Your task to perform on an android device: toggle show notifications on the lock screen Image 0: 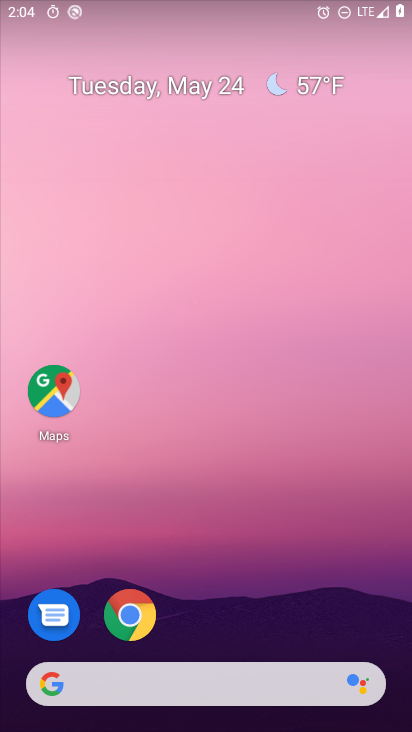
Step 0: drag from (152, 663) to (226, 88)
Your task to perform on an android device: toggle show notifications on the lock screen Image 1: 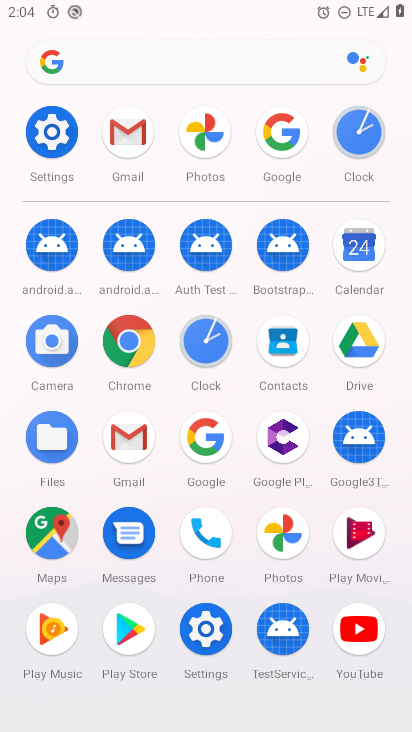
Step 1: click (41, 127)
Your task to perform on an android device: toggle show notifications on the lock screen Image 2: 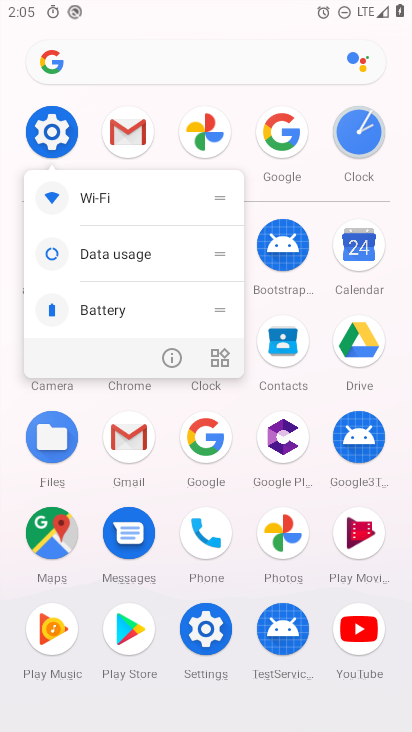
Step 2: click (203, 635)
Your task to perform on an android device: toggle show notifications on the lock screen Image 3: 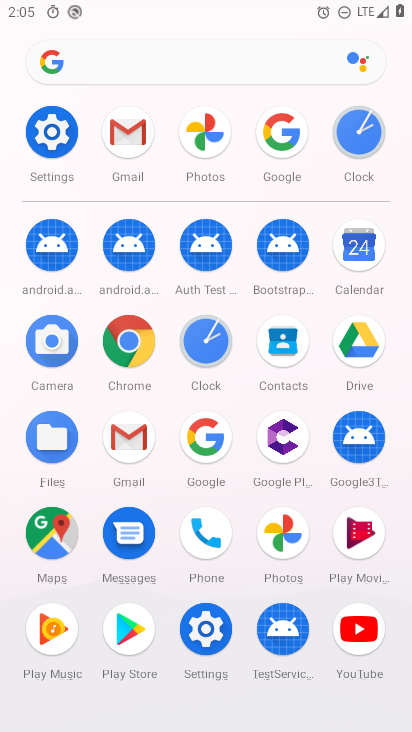
Step 3: click (203, 635)
Your task to perform on an android device: toggle show notifications on the lock screen Image 4: 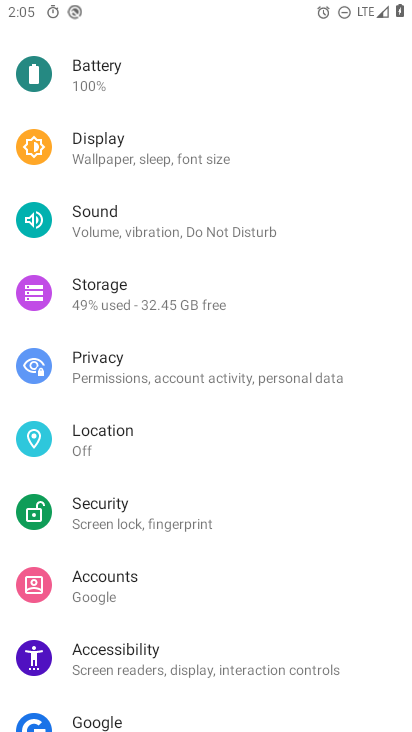
Step 4: click (143, 353)
Your task to perform on an android device: toggle show notifications on the lock screen Image 5: 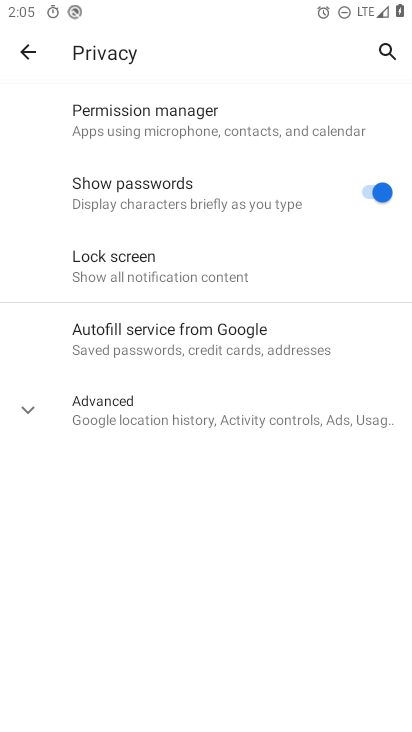
Step 5: click (124, 280)
Your task to perform on an android device: toggle show notifications on the lock screen Image 6: 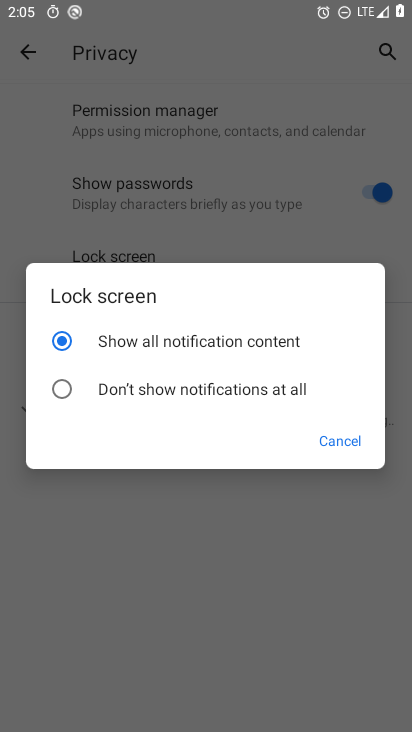
Step 6: click (126, 406)
Your task to perform on an android device: toggle show notifications on the lock screen Image 7: 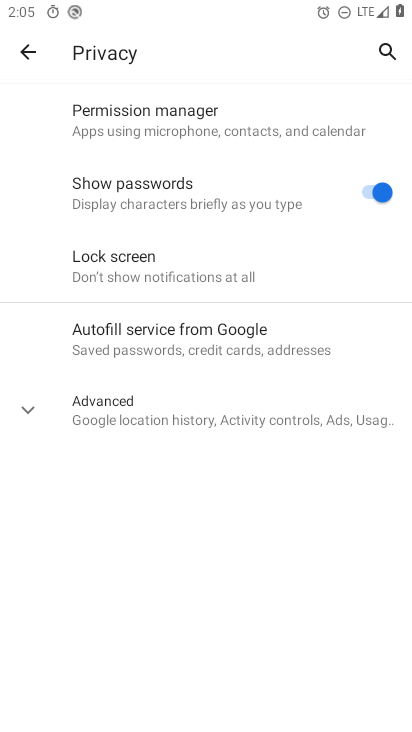
Step 7: task complete